Your task to perform on an android device: delete browsing data in the chrome app Image 0: 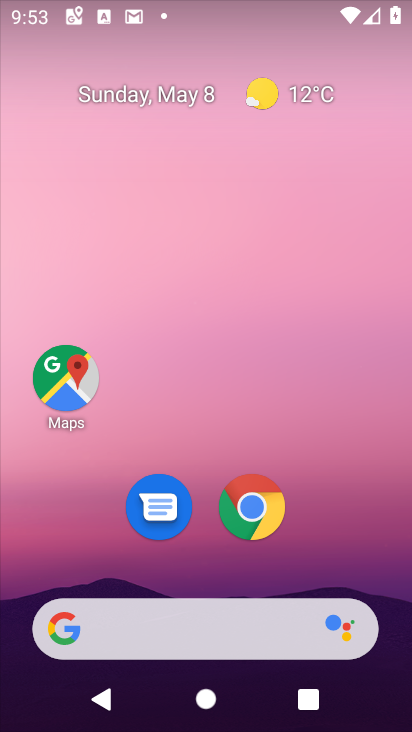
Step 0: click (269, 515)
Your task to perform on an android device: delete browsing data in the chrome app Image 1: 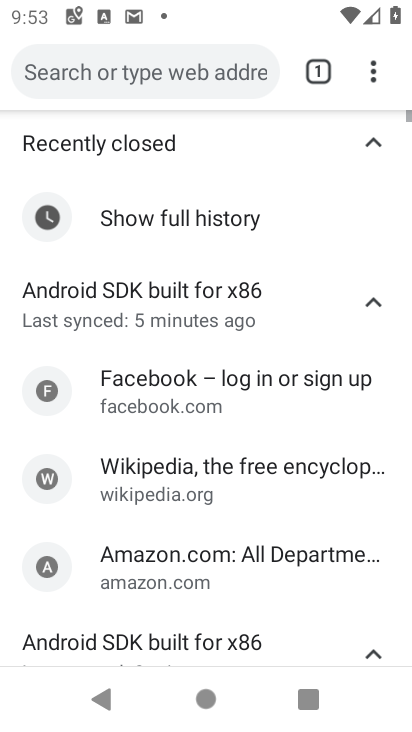
Step 1: click (372, 63)
Your task to perform on an android device: delete browsing data in the chrome app Image 2: 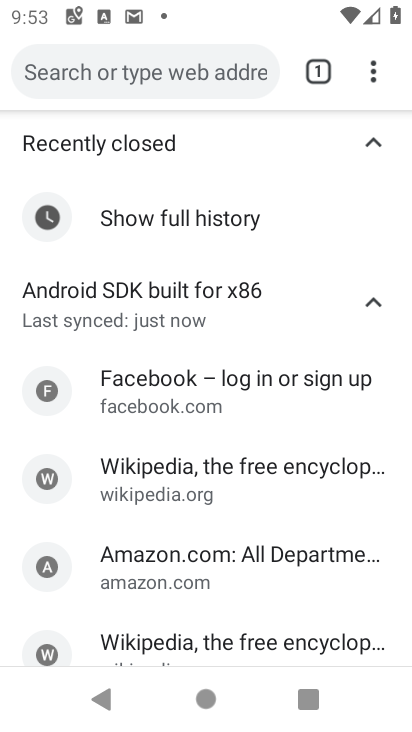
Step 2: click (377, 71)
Your task to perform on an android device: delete browsing data in the chrome app Image 3: 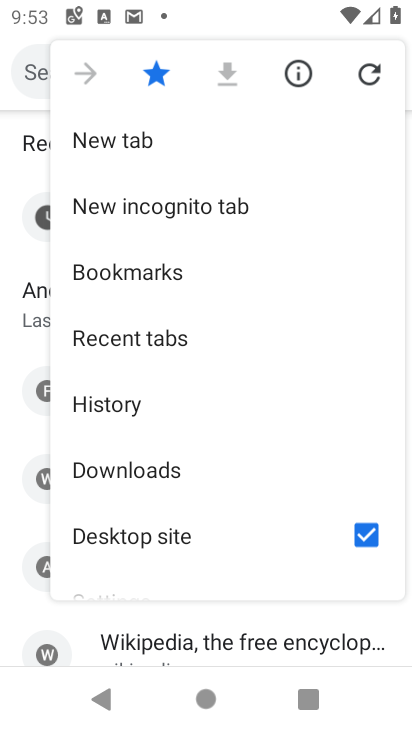
Step 3: click (130, 407)
Your task to perform on an android device: delete browsing data in the chrome app Image 4: 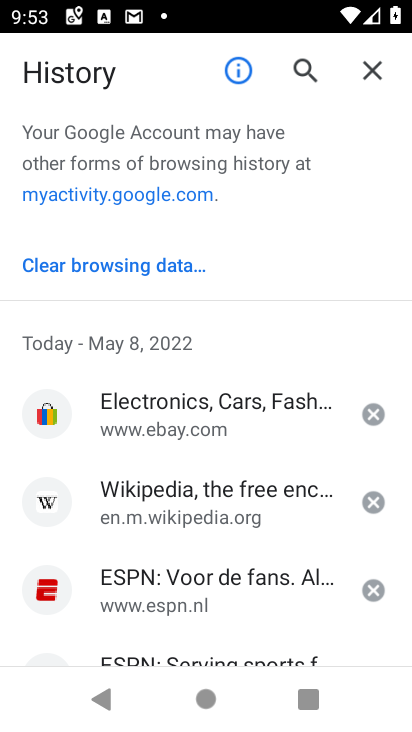
Step 4: click (140, 264)
Your task to perform on an android device: delete browsing data in the chrome app Image 5: 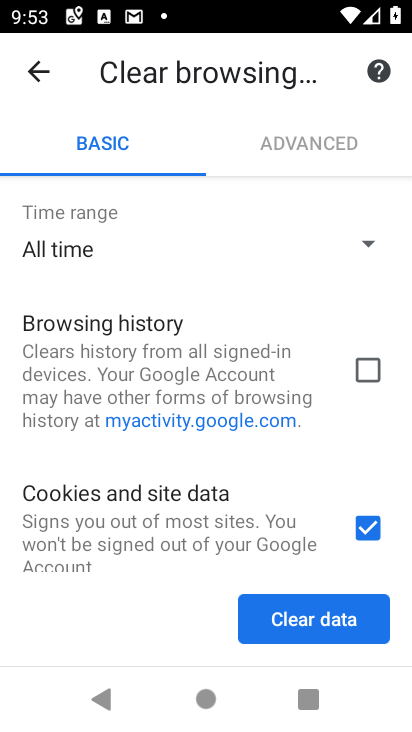
Step 5: click (336, 623)
Your task to perform on an android device: delete browsing data in the chrome app Image 6: 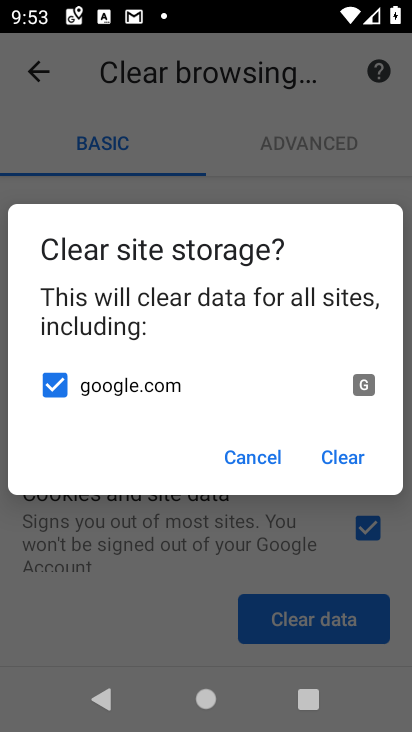
Step 6: click (346, 459)
Your task to perform on an android device: delete browsing data in the chrome app Image 7: 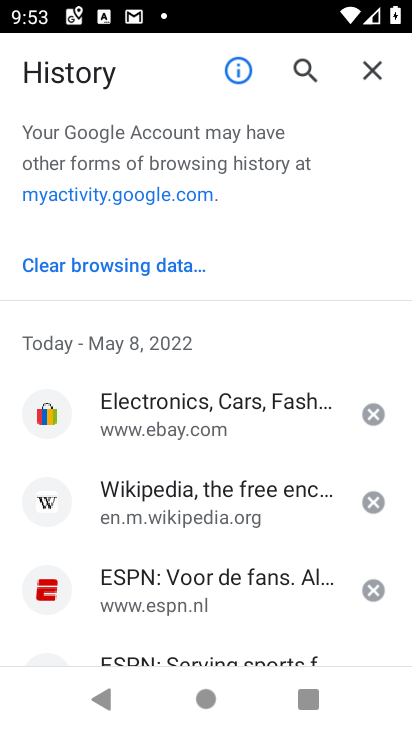
Step 7: task complete